Your task to perform on an android device: Add apple airpods pro to the cart on target.com, then select checkout. Image 0: 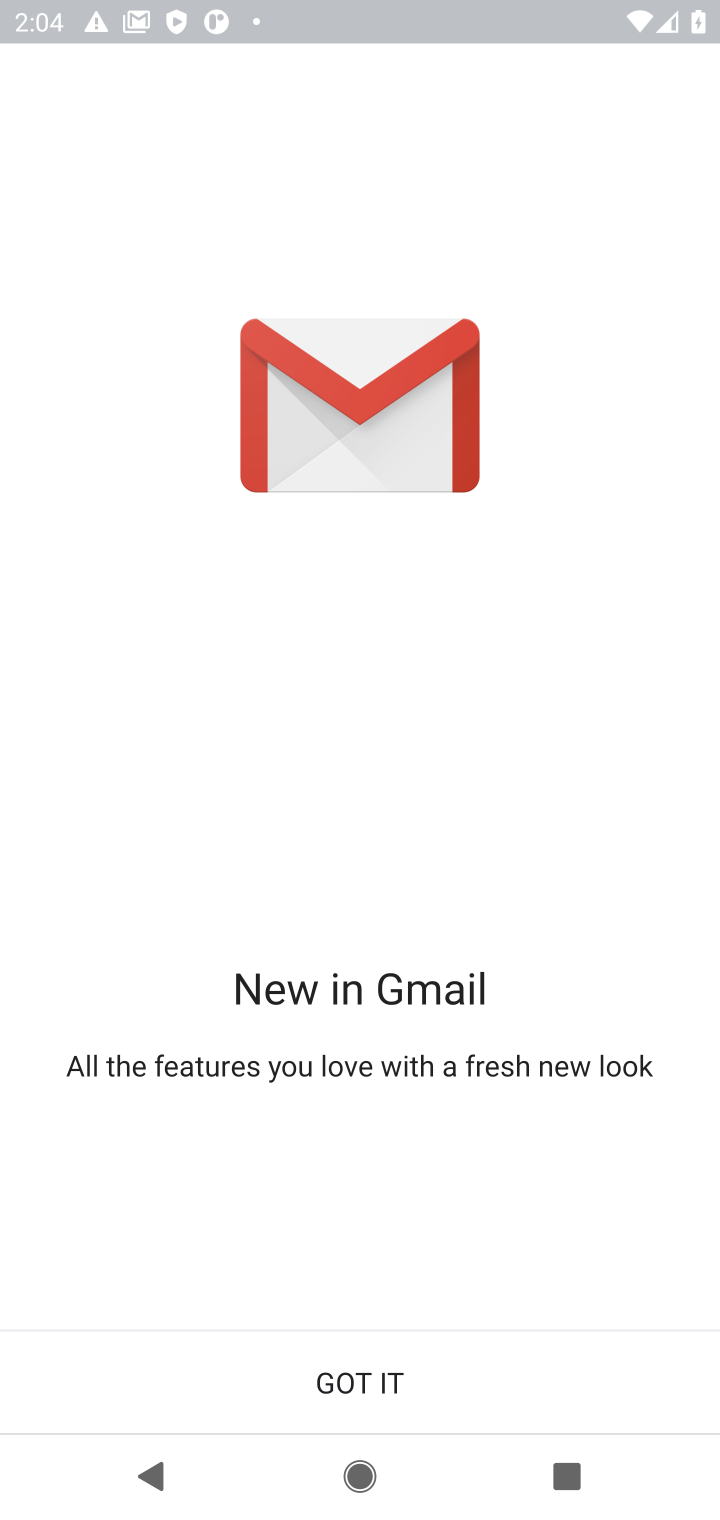
Step 0: click (375, 1390)
Your task to perform on an android device: Add apple airpods pro to the cart on target.com, then select checkout. Image 1: 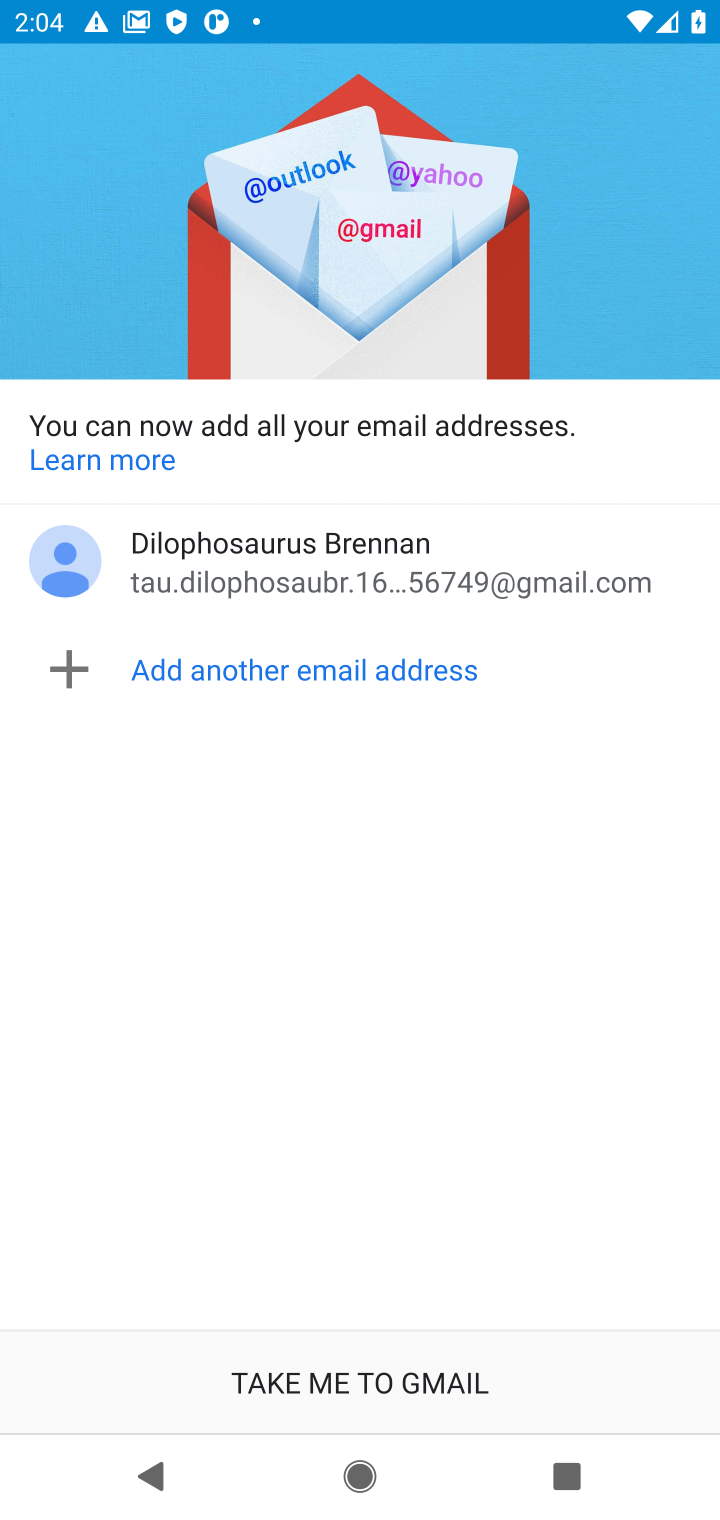
Step 1: task complete